Your task to perform on an android device: Open the map Image 0: 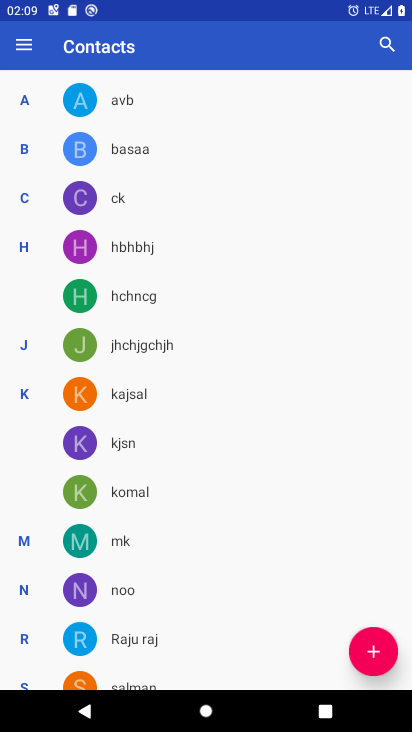
Step 0: press home button
Your task to perform on an android device: Open the map Image 1: 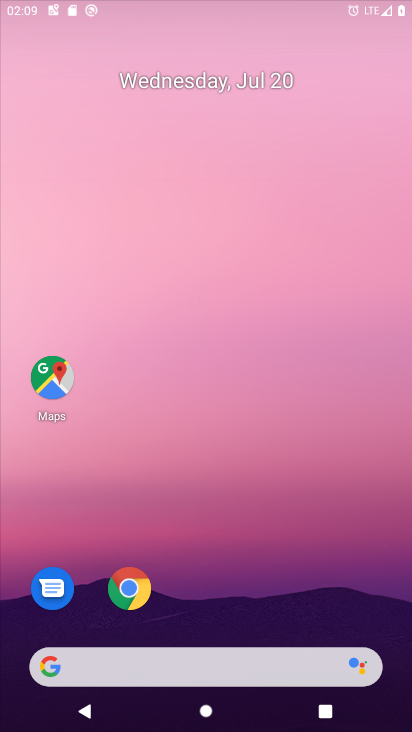
Step 1: click (201, 647)
Your task to perform on an android device: Open the map Image 2: 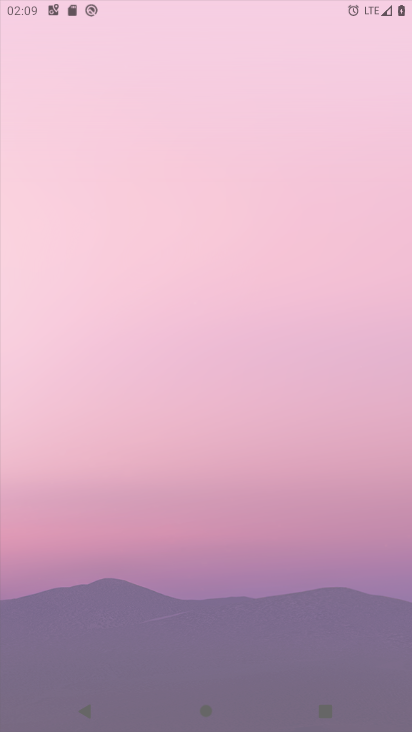
Step 2: click (42, 379)
Your task to perform on an android device: Open the map Image 3: 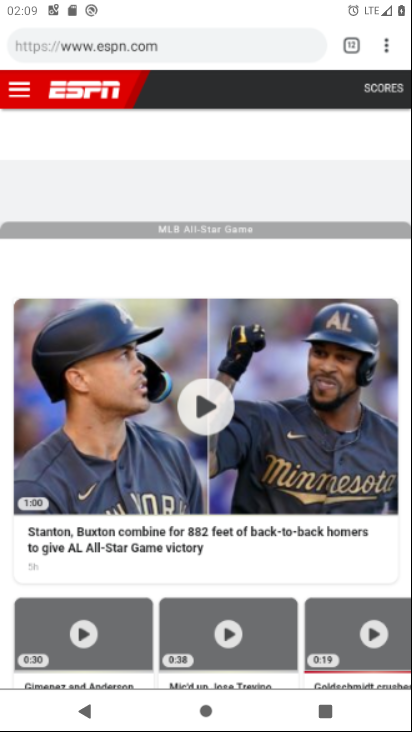
Step 3: press home button
Your task to perform on an android device: Open the map Image 4: 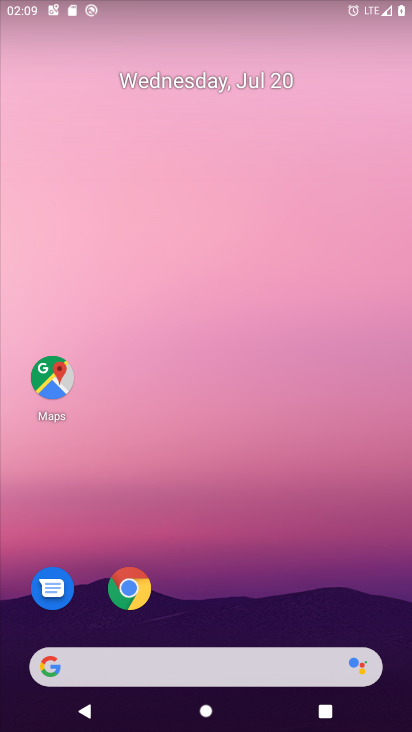
Step 4: click (49, 366)
Your task to perform on an android device: Open the map Image 5: 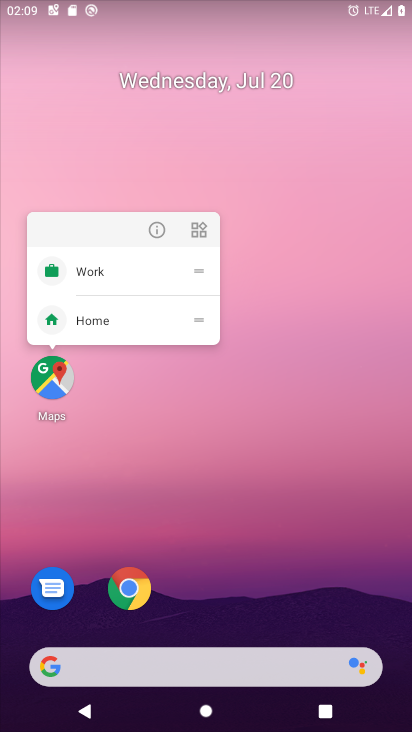
Step 5: click (53, 381)
Your task to perform on an android device: Open the map Image 6: 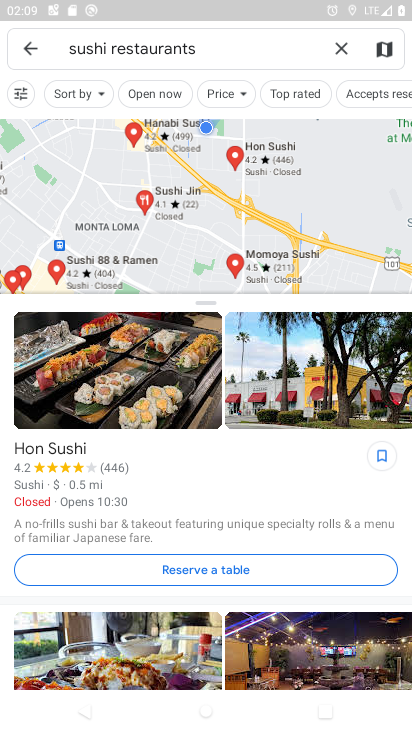
Step 6: click (352, 43)
Your task to perform on an android device: Open the map Image 7: 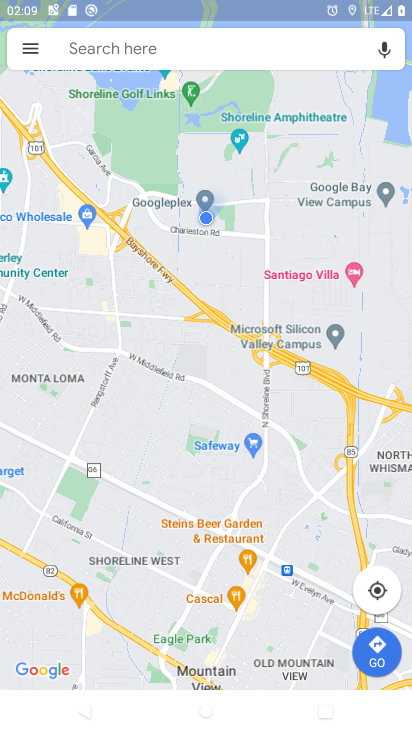
Step 7: task complete